Your task to perform on an android device: Show me the top rated dinnerware on Crate & Barrel Image 0: 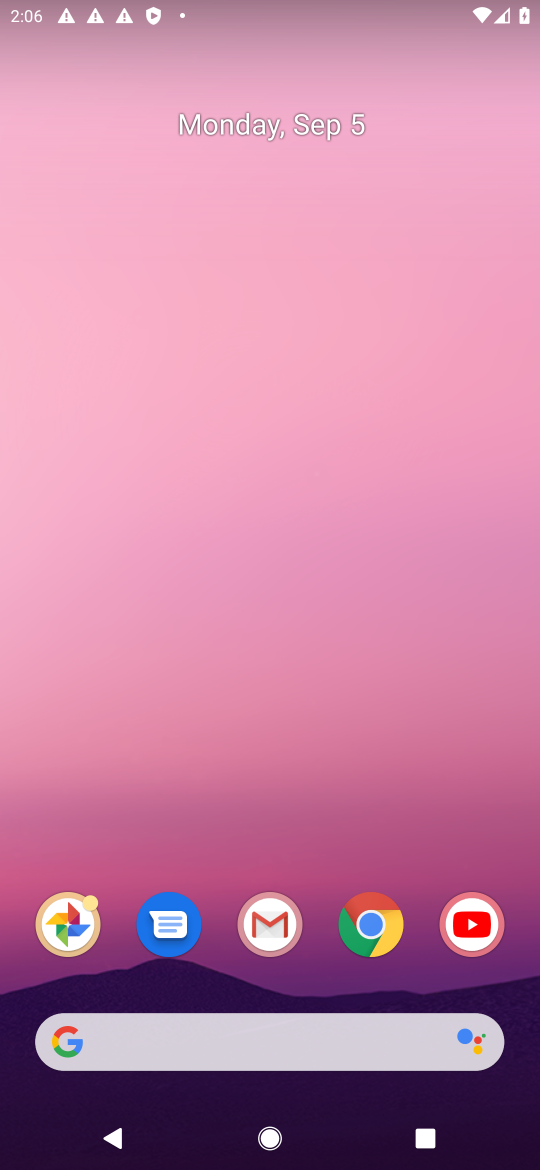
Step 0: click (367, 932)
Your task to perform on an android device: Show me the top rated dinnerware on Crate & Barrel Image 1: 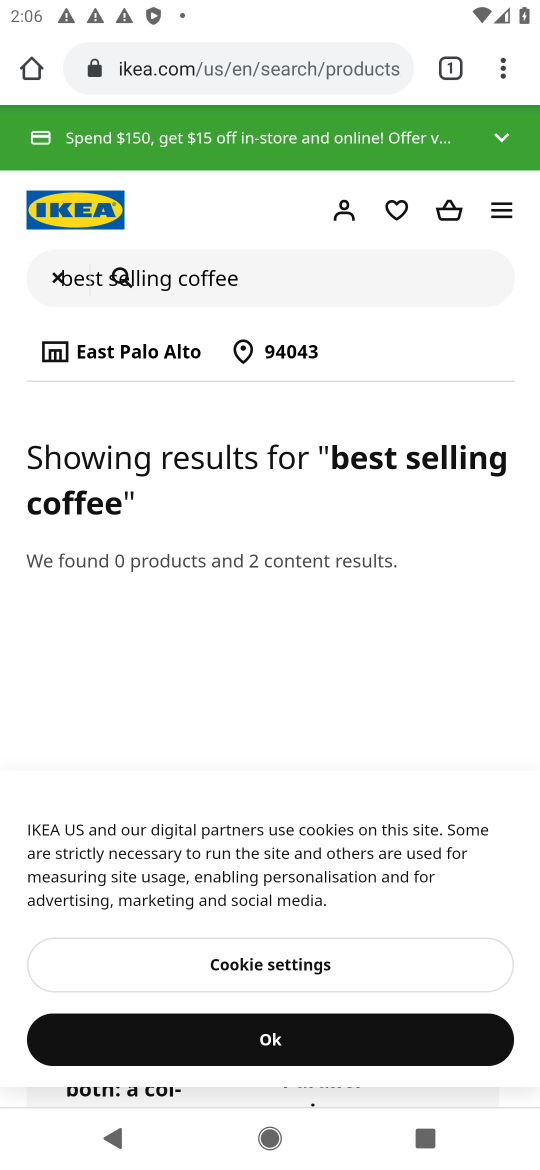
Step 1: click (352, 76)
Your task to perform on an android device: Show me the top rated dinnerware on Crate & Barrel Image 2: 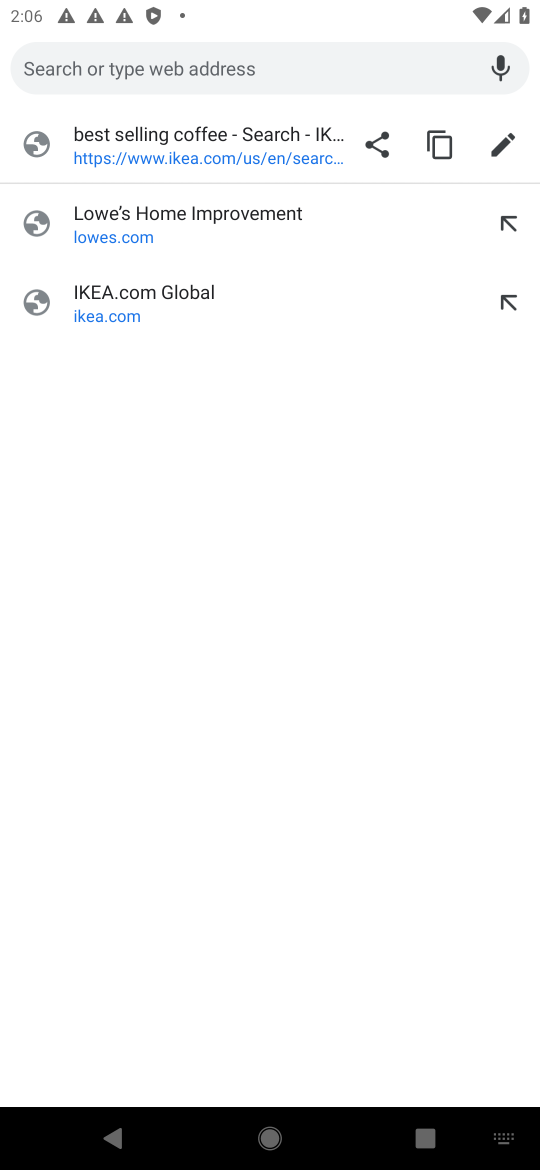
Step 2: type "crate and batrrel"
Your task to perform on an android device: Show me the top rated dinnerware on Crate & Barrel Image 3: 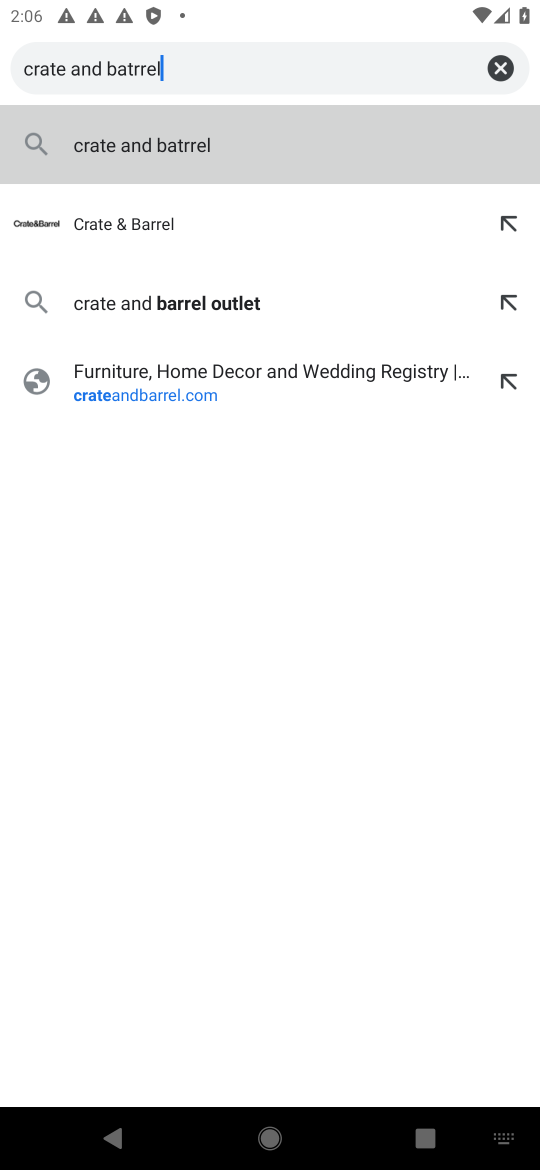
Step 3: click (78, 234)
Your task to perform on an android device: Show me the top rated dinnerware on Crate & Barrel Image 4: 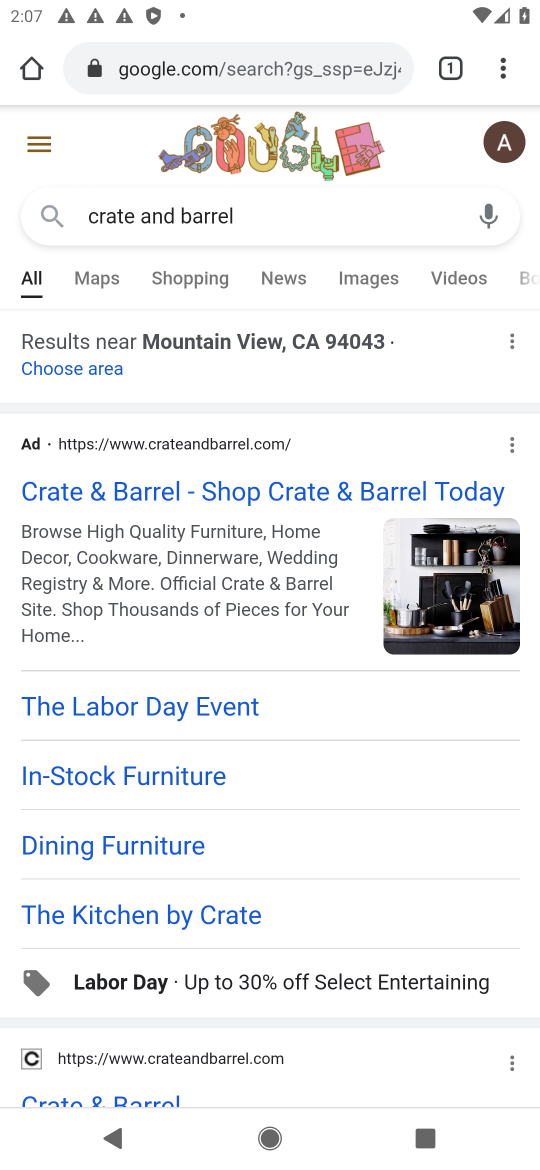
Step 4: drag from (137, 1025) to (127, 902)
Your task to perform on an android device: Show me the top rated dinnerware on Crate & Barrel Image 5: 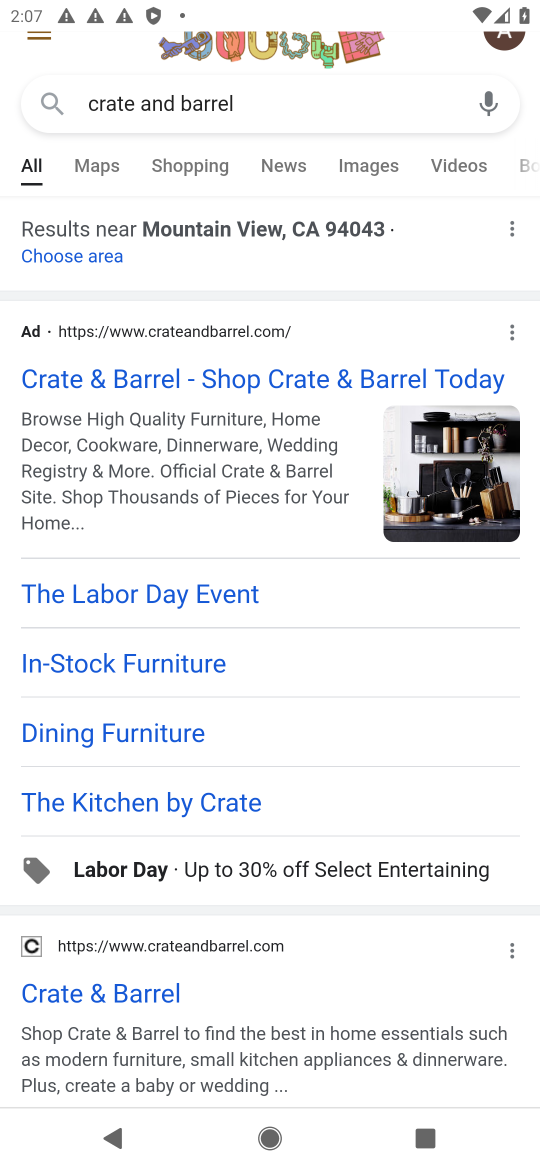
Step 5: click (148, 997)
Your task to perform on an android device: Show me the top rated dinnerware on Crate & Barrel Image 6: 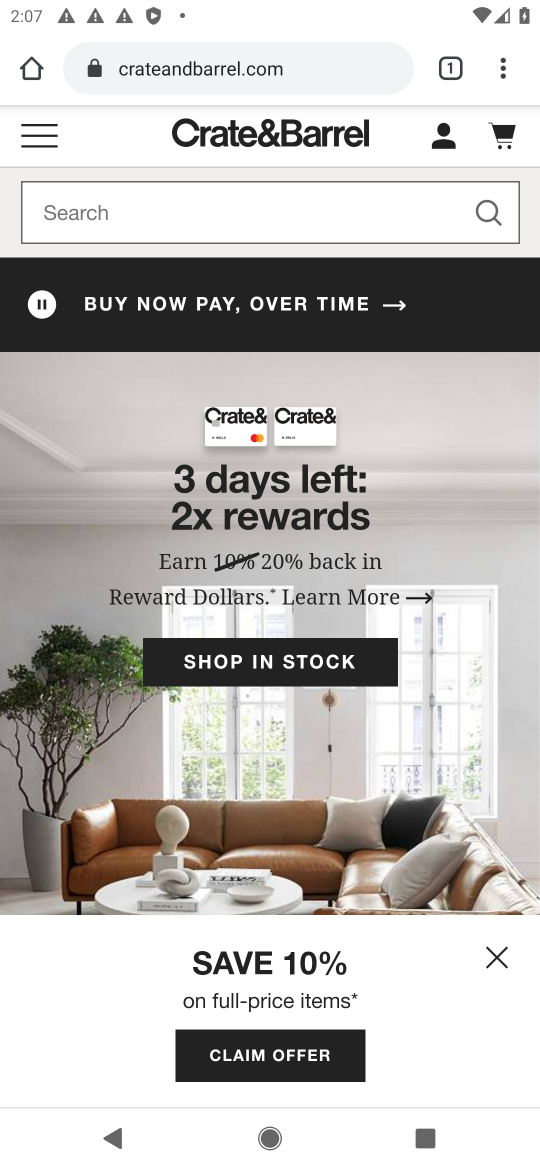
Step 6: click (372, 232)
Your task to perform on an android device: Show me the top rated dinnerware on Crate & Barrel Image 7: 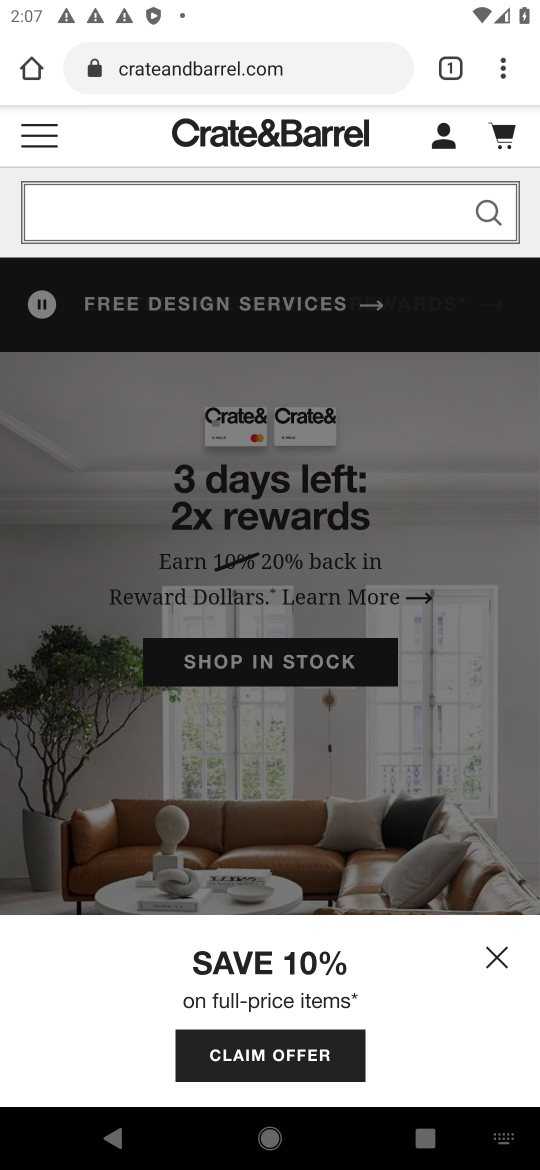
Step 7: type "top rated dinnerware"
Your task to perform on an android device: Show me the top rated dinnerware on Crate & Barrel Image 8: 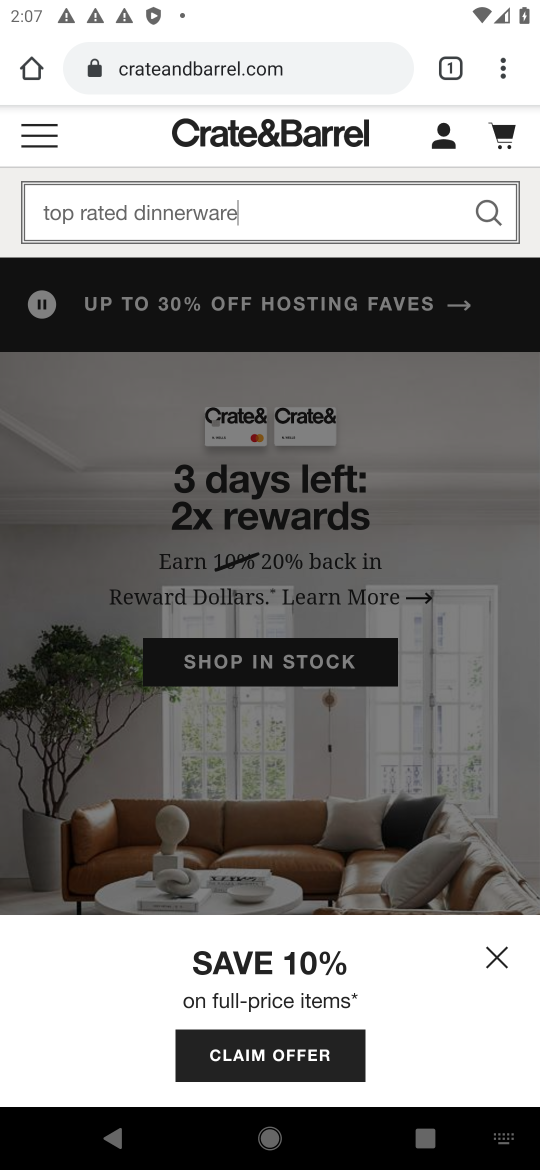
Step 8: click (488, 214)
Your task to perform on an android device: Show me the top rated dinnerware on Crate & Barrel Image 9: 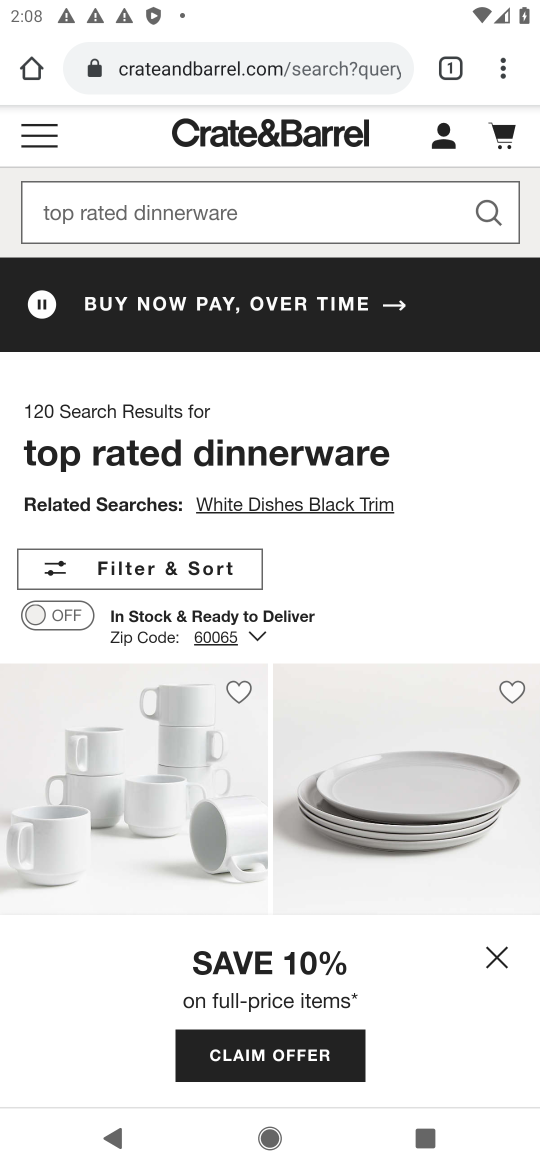
Step 9: task complete